Your task to perform on an android device: change the clock display to analog Image 0: 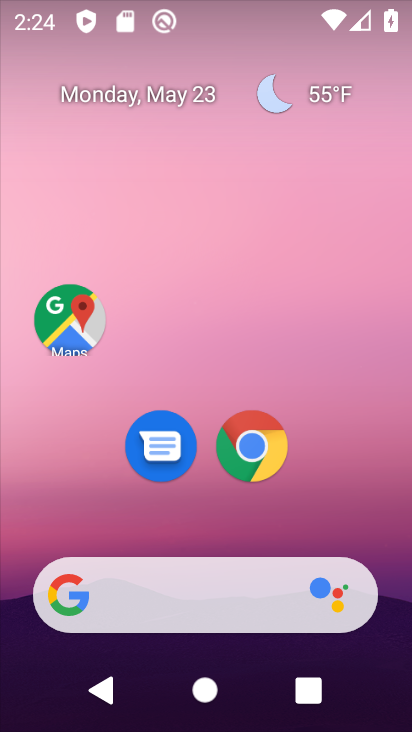
Step 0: drag from (208, 517) to (233, 139)
Your task to perform on an android device: change the clock display to analog Image 1: 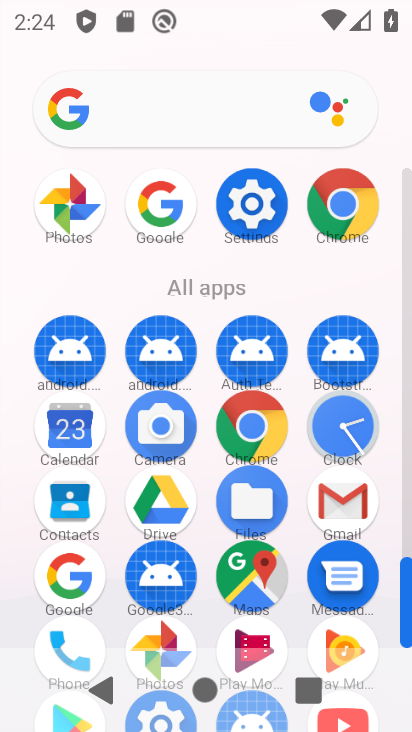
Step 1: click (340, 416)
Your task to perform on an android device: change the clock display to analog Image 2: 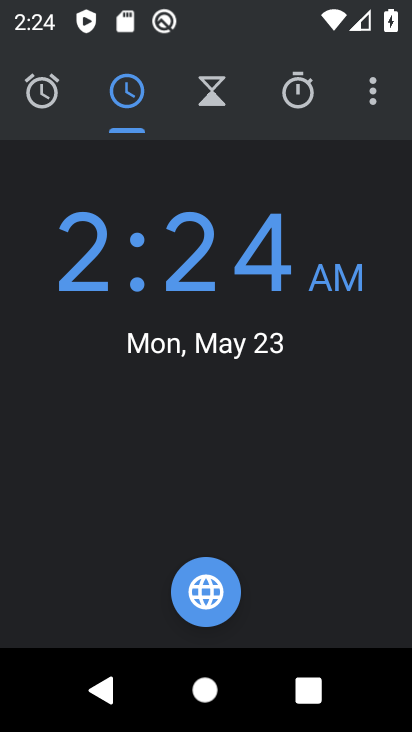
Step 2: click (376, 87)
Your task to perform on an android device: change the clock display to analog Image 3: 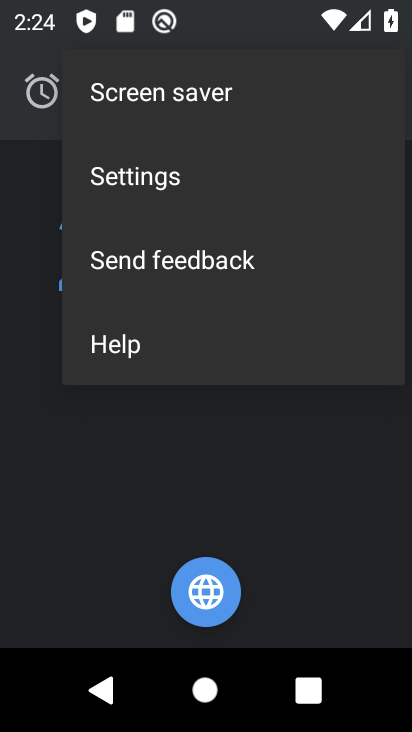
Step 3: click (165, 168)
Your task to perform on an android device: change the clock display to analog Image 4: 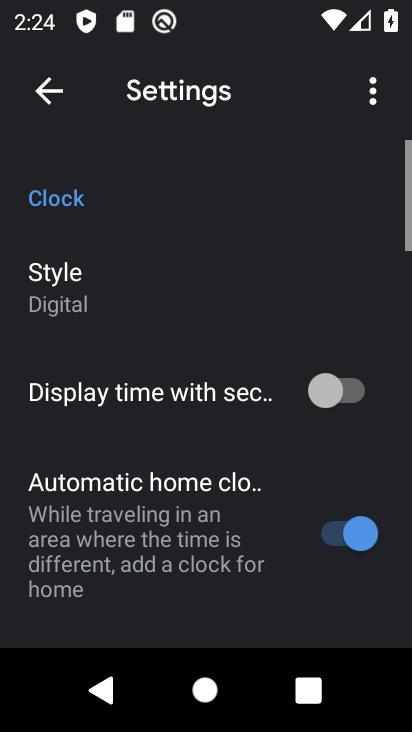
Step 4: click (93, 271)
Your task to perform on an android device: change the clock display to analog Image 5: 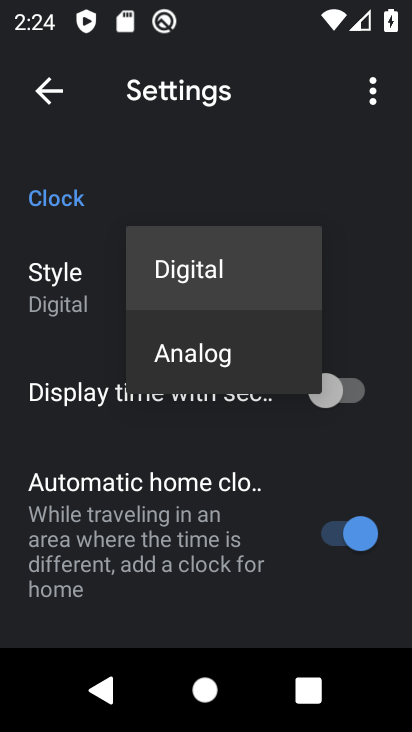
Step 5: click (169, 349)
Your task to perform on an android device: change the clock display to analog Image 6: 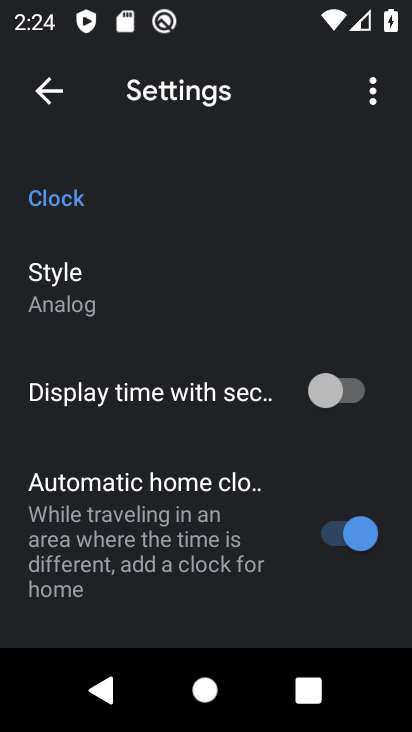
Step 6: task complete